Your task to perform on an android device: Do I have any events this weekend? Image 0: 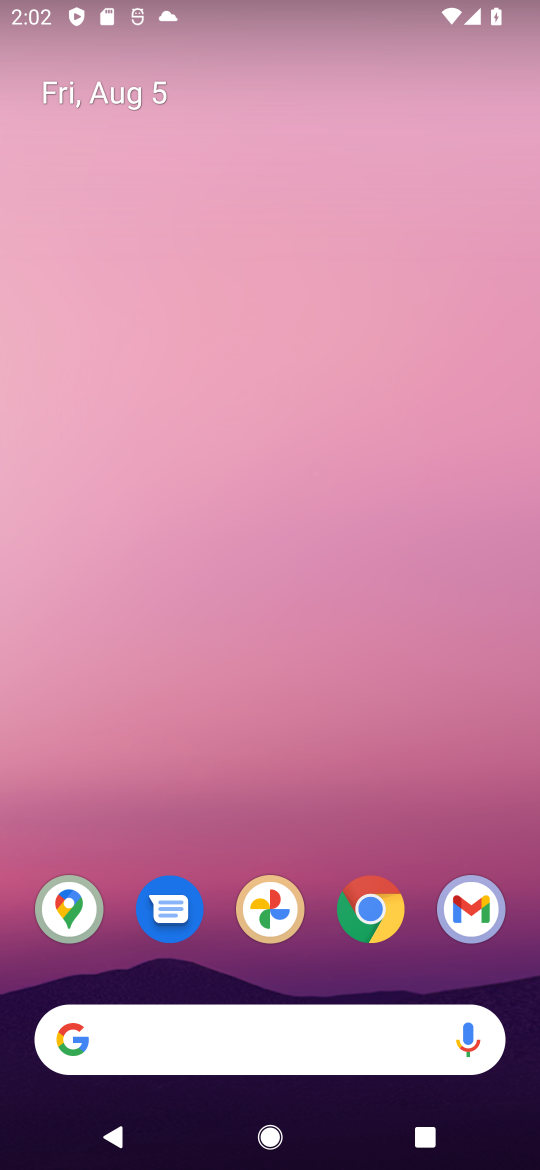
Step 0: drag from (231, 976) to (227, 252)
Your task to perform on an android device: Do I have any events this weekend? Image 1: 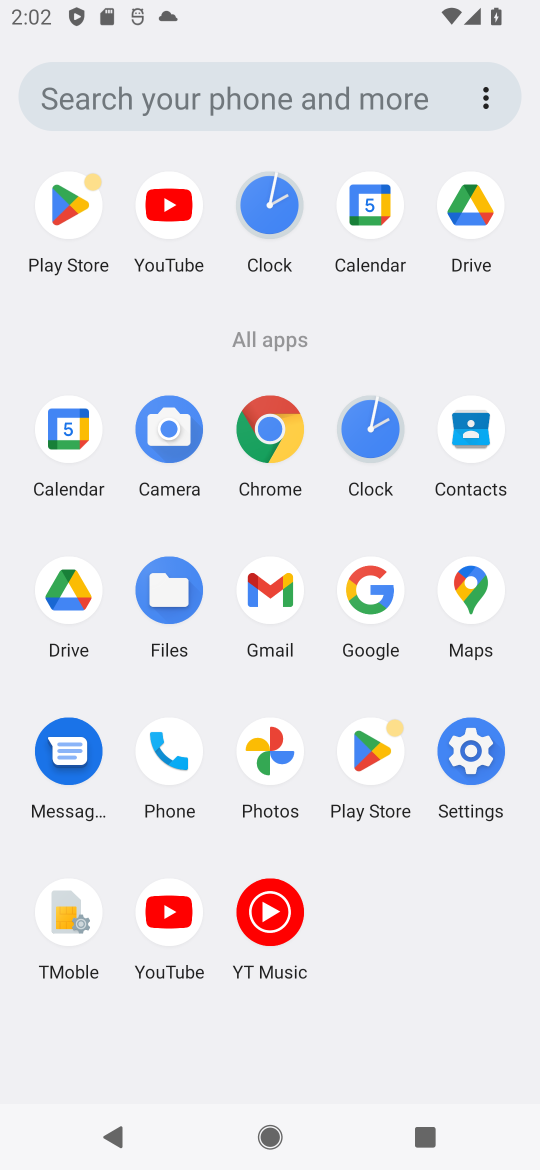
Step 1: click (388, 254)
Your task to perform on an android device: Do I have any events this weekend? Image 2: 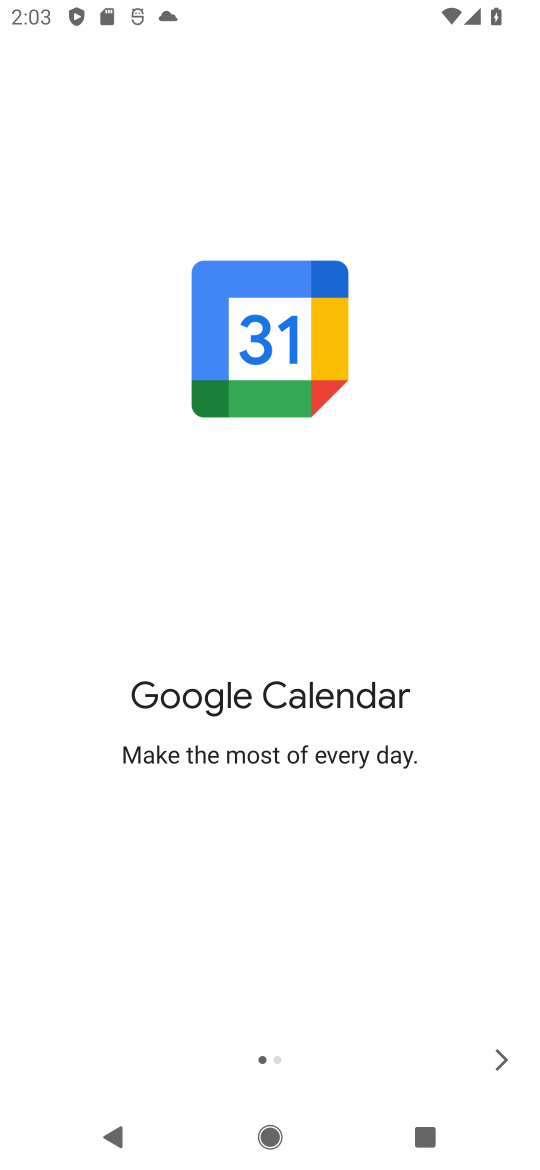
Step 2: click (491, 1054)
Your task to perform on an android device: Do I have any events this weekend? Image 3: 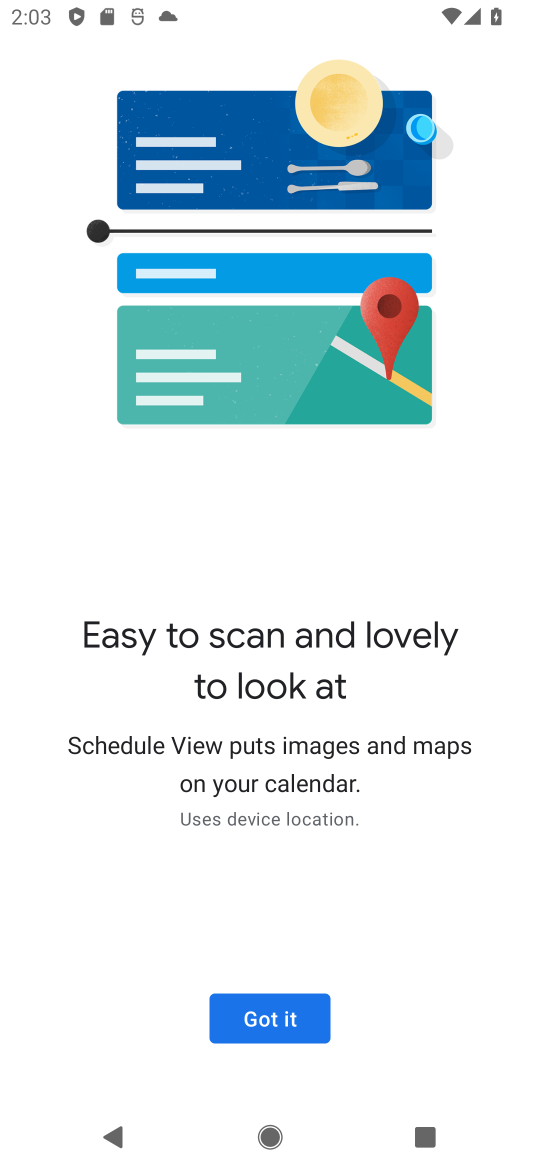
Step 3: click (216, 1029)
Your task to perform on an android device: Do I have any events this weekend? Image 4: 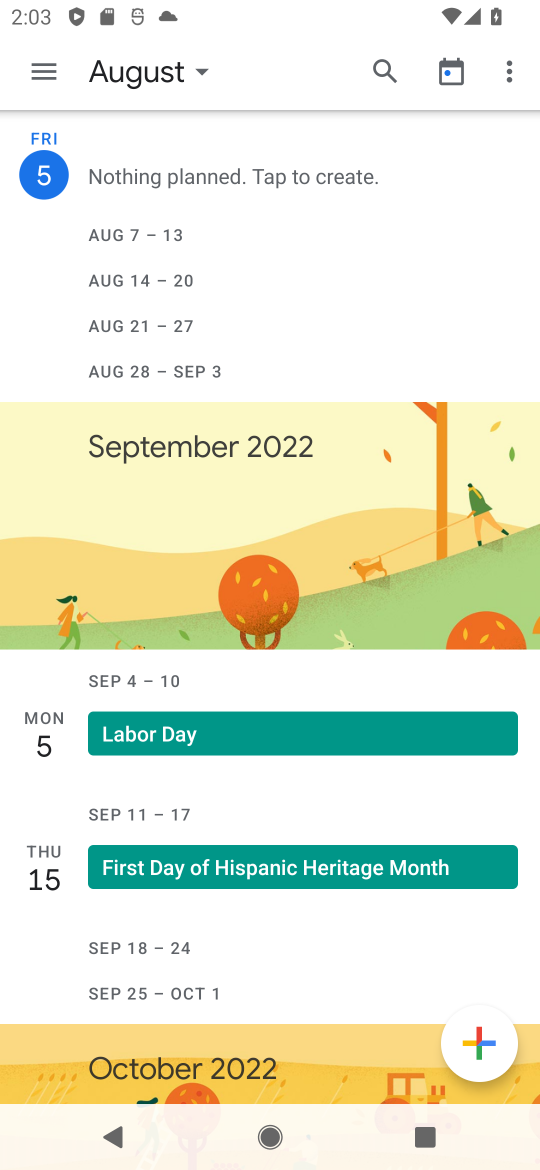
Step 4: task complete